Your task to perform on an android device: open a bookmark in the chrome app Image 0: 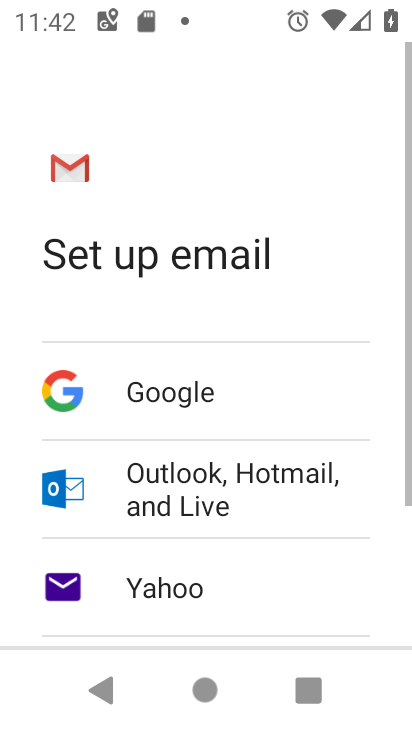
Step 0: press home button
Your task to perform on an android device: open a bookmark in the chrome app Image 1: 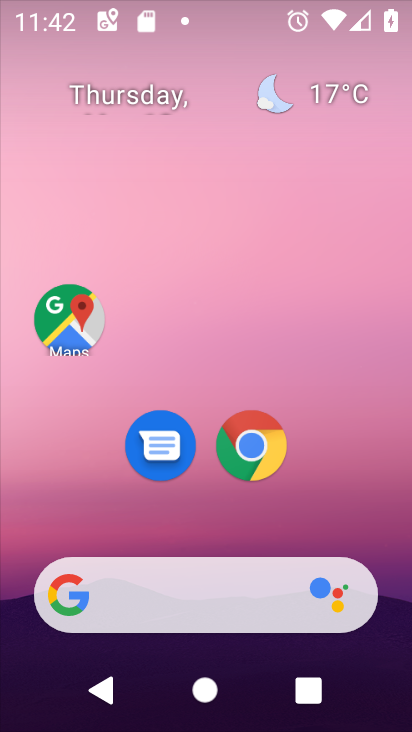
Step 1: drag from (323, 514) to (334, 182)
Your task to perform on an android device: open a bookmark in the chrome app Image 2: 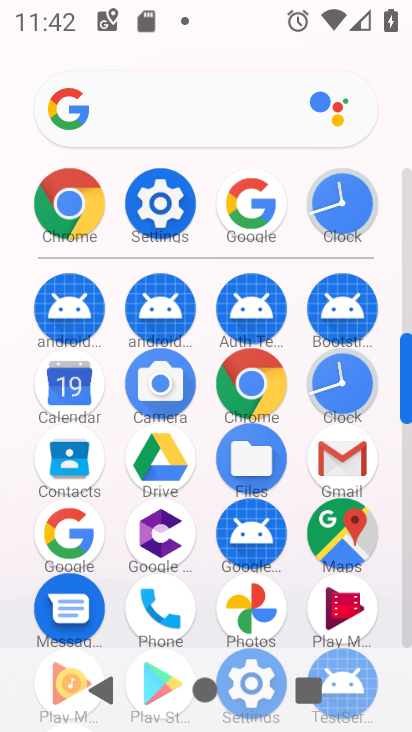
Step 2: click (258, 375)
Your task to perform on an android device: open a bookmark in the chrome app Image 3: 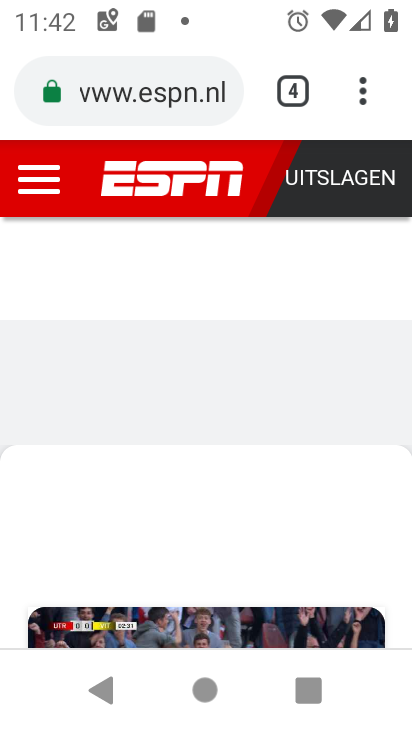
Step 3: click (357, 96)
Your task to perform on an android device: open a bookmark in the chrome app Image 4: 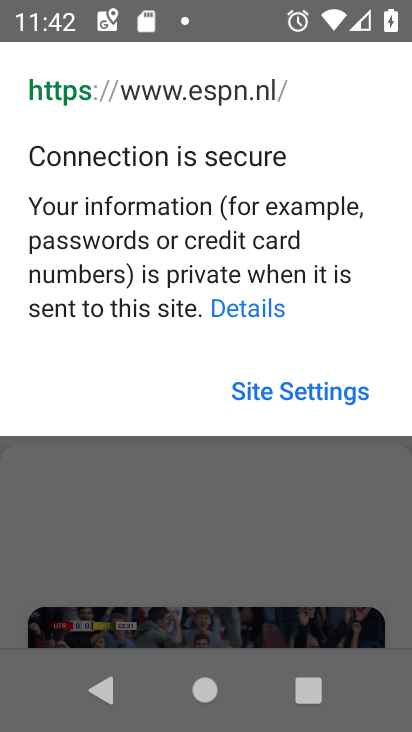
Step 4: click (291, 391)
Your task to perform on an android device: open a bookmark in the chrome app Image 5: 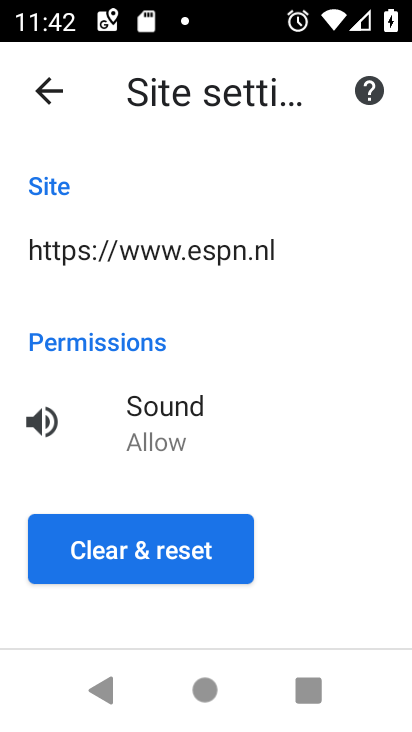
Step 5: task complete